Your task to perform on an android device: View the shopping cart on target. Add duracell triple a to the cart on target, then select checkout. Image 0: 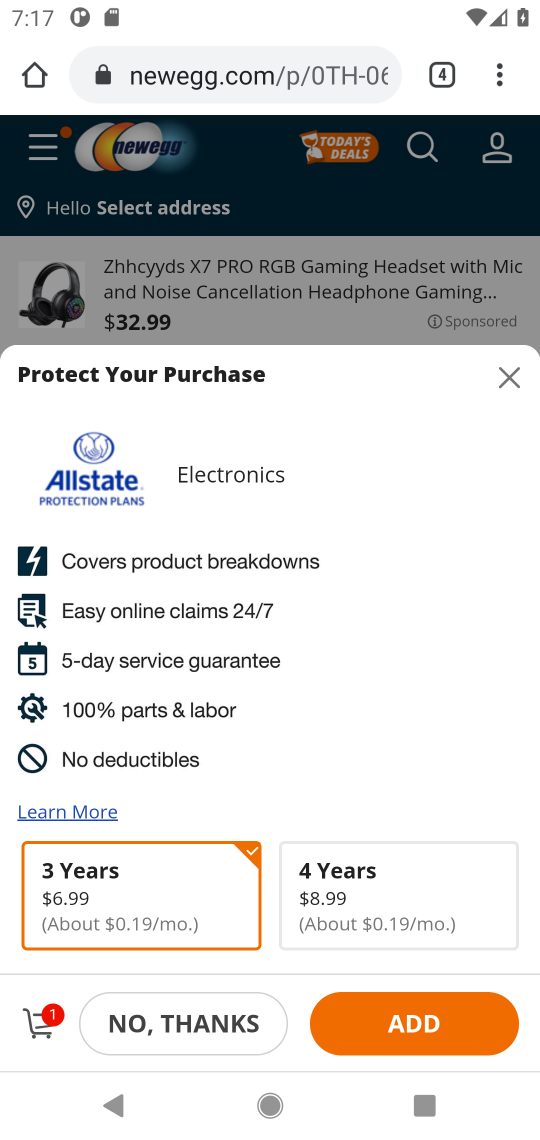
Step 0: drag from (197, 983) to (209, 702)
Your task to perform on an android device: View the shopping cart on target. Add duracell triple a to the cart on target, then select checkout. Image 1: 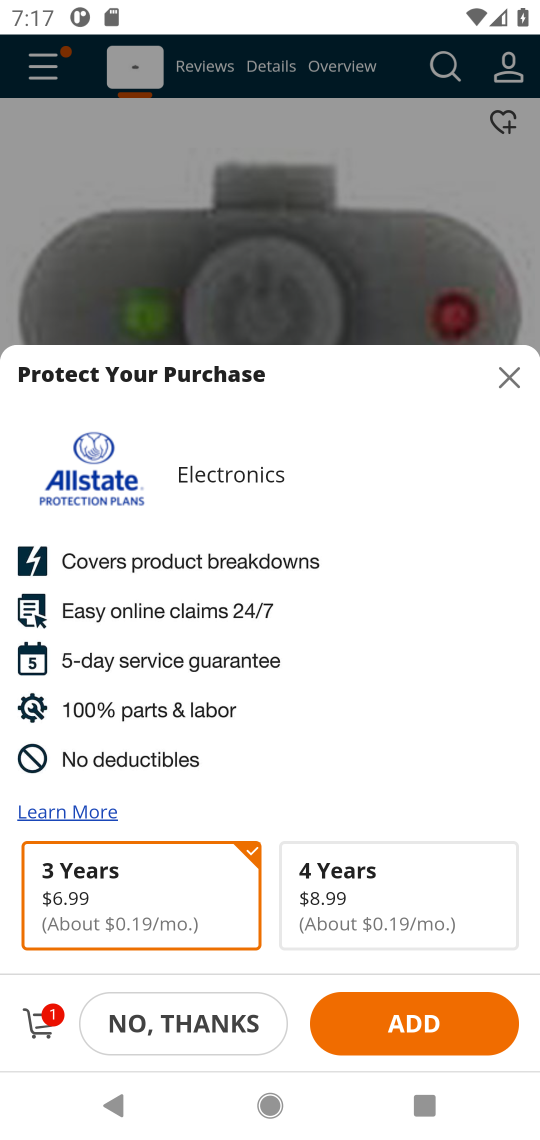
Step 1: click (502, 366)
Your task to perform on an android device: View the shopping cart on target. Add duracell triple a to the cart on target, then select checkout. Image 2: 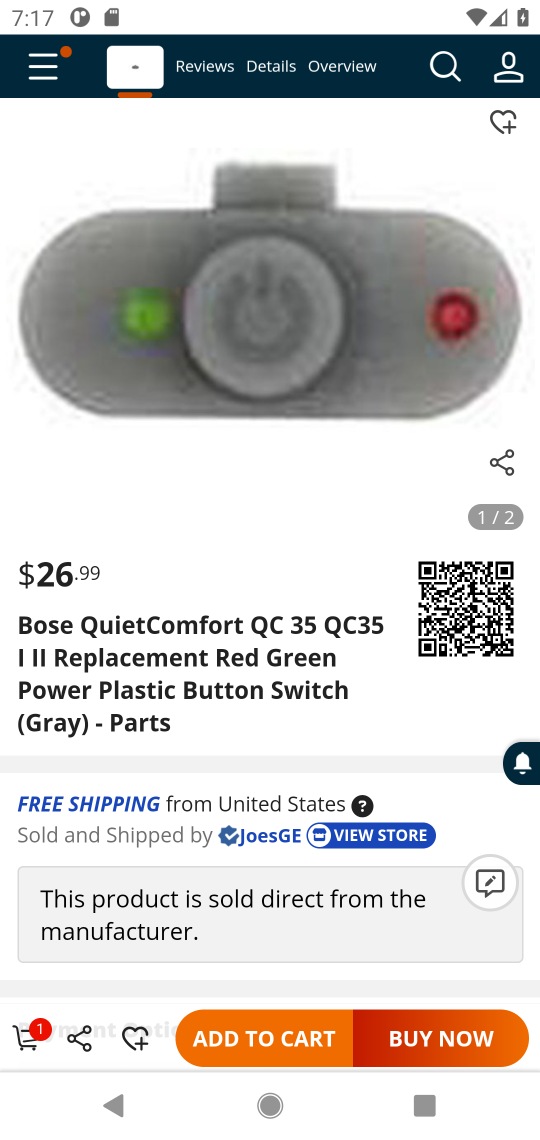
Step 2: press home button
Your task to perform on an android device: View the shopping cart on target. Add duracell triple a to the cart on target, then select checkout. Image 3: 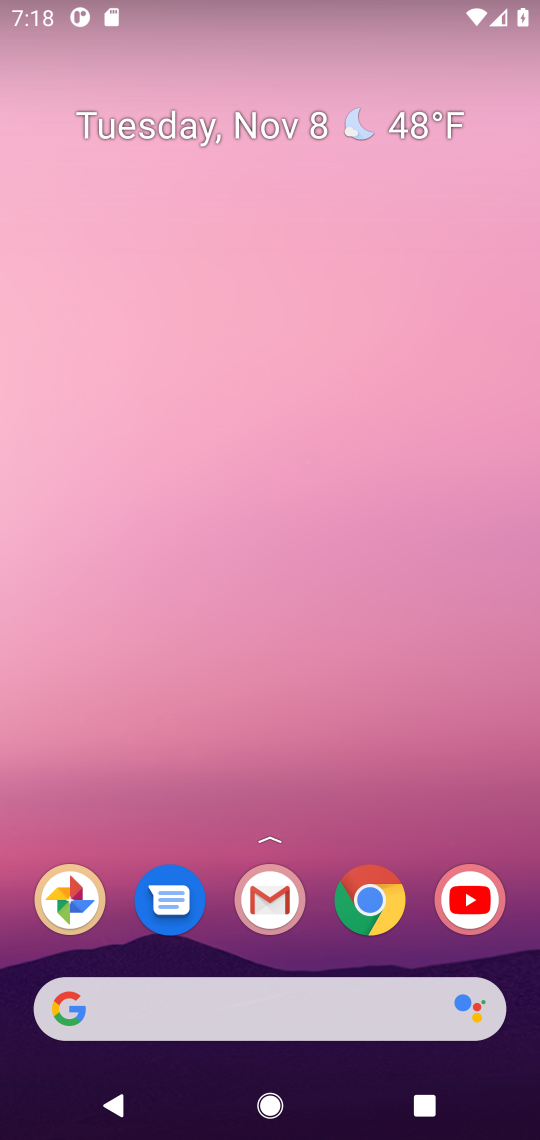
Step 3: drag from (277, 620) to (348, 117)
Your task to perform on an android device: View the shopping cart on target. Add duracell triple a to the cart on target, then select checkout. Image 4: 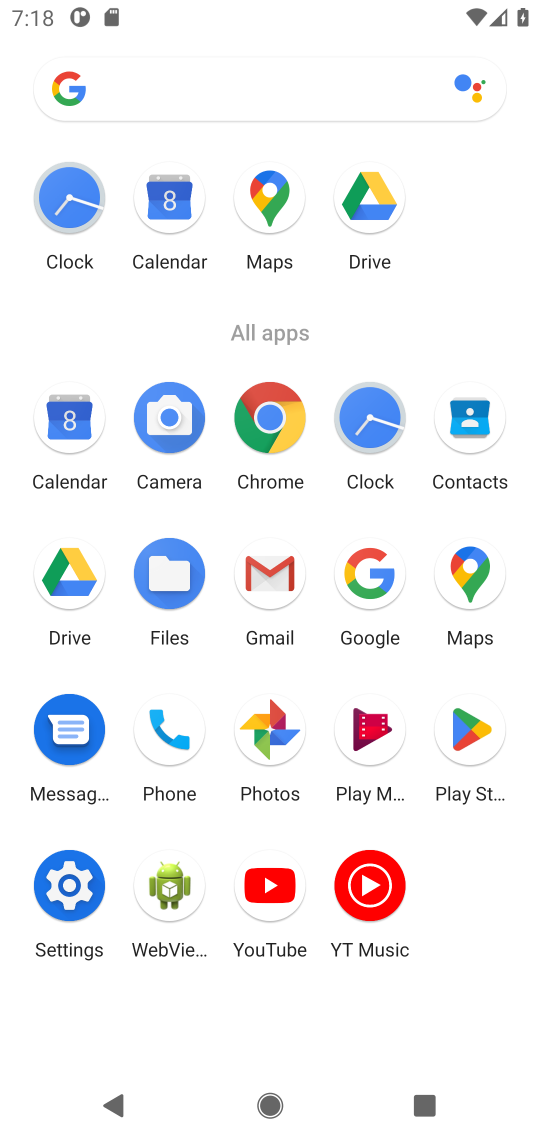
Step 4: click (378, 576)
Your task to perform on an android device: View the shopping cart on target. Add duracell triple a to the cart on target, then select checkout. Image 5: 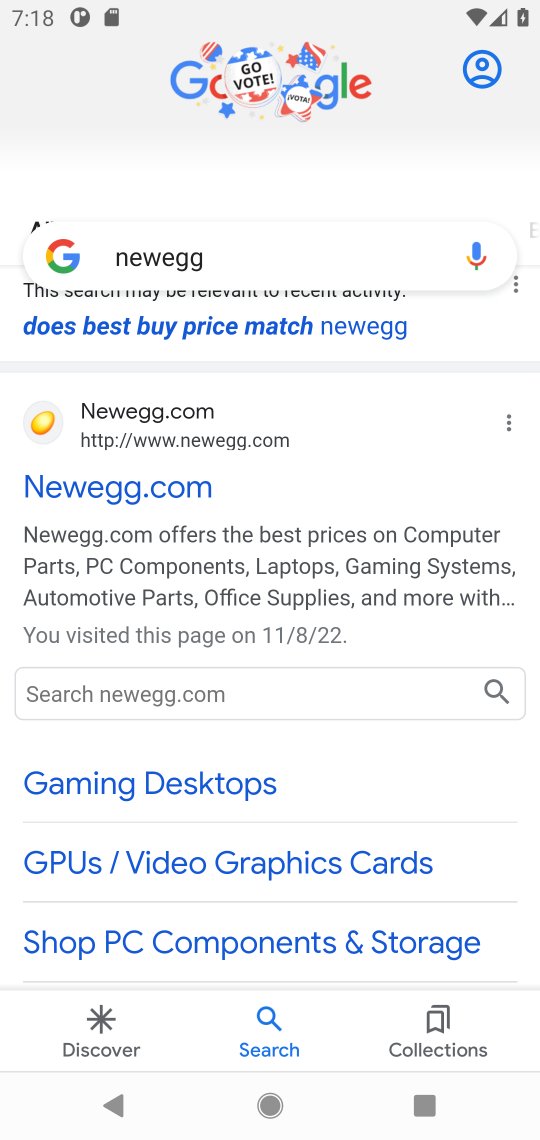
Step 5: click (236, 248)
Your task to perform on an android device: View the shopping cart on target. Add duracell triple a to the cart on target, then select checkout. Image 6: 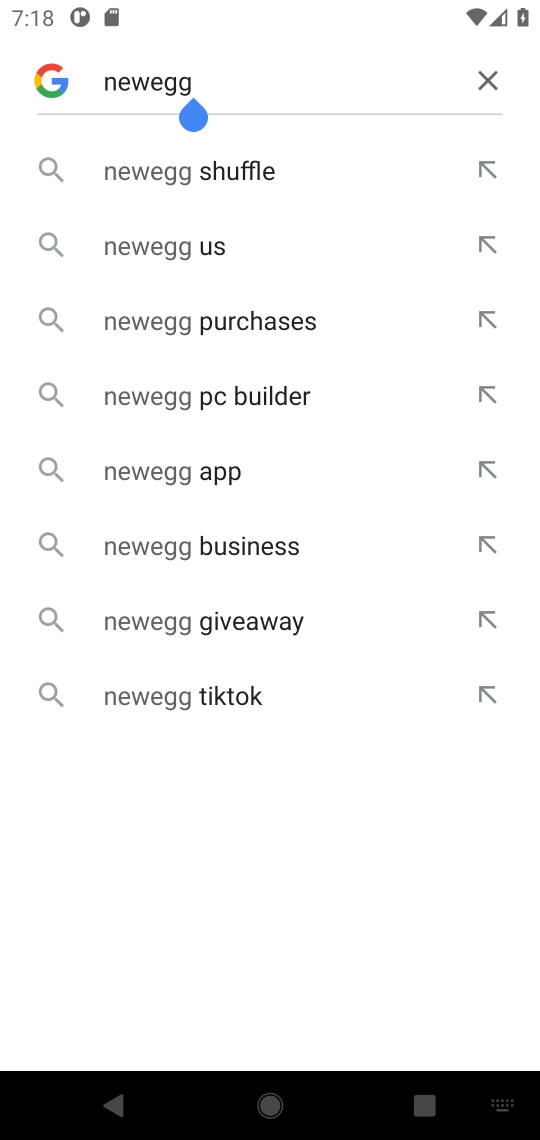
Step 6: click (494, 87)
Your task to perform on an android device: View the shopping cart on target. Add duracell triple a to the cart on target, then select checkout. Image 7: 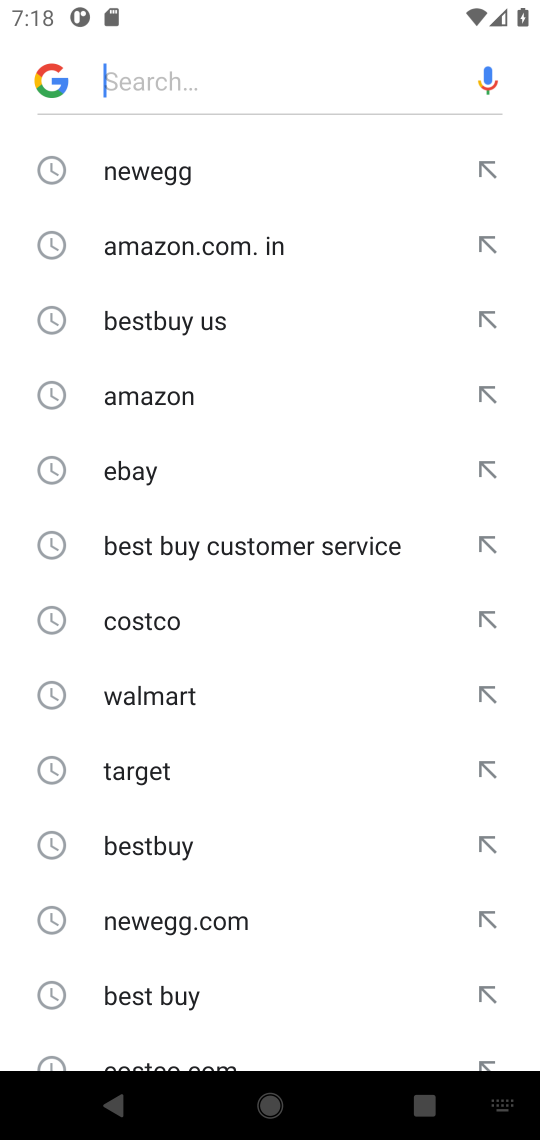
Step 7: click (215, 66)
Your task to perform on an android device: View the shopping cart on target. Add duracell triple a to the cart on target, then select checkout. Image 8: 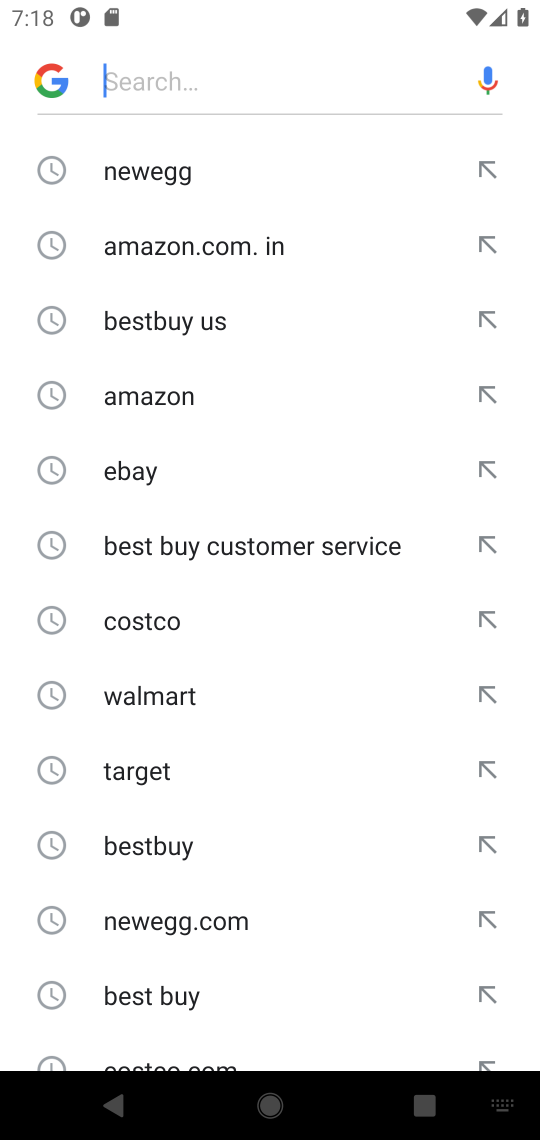
Step 8: type "target "
Your task to perform on an android device: View the shopping cart on target. Add duracell triple a to the cart on target, then select checkout. Image 9: 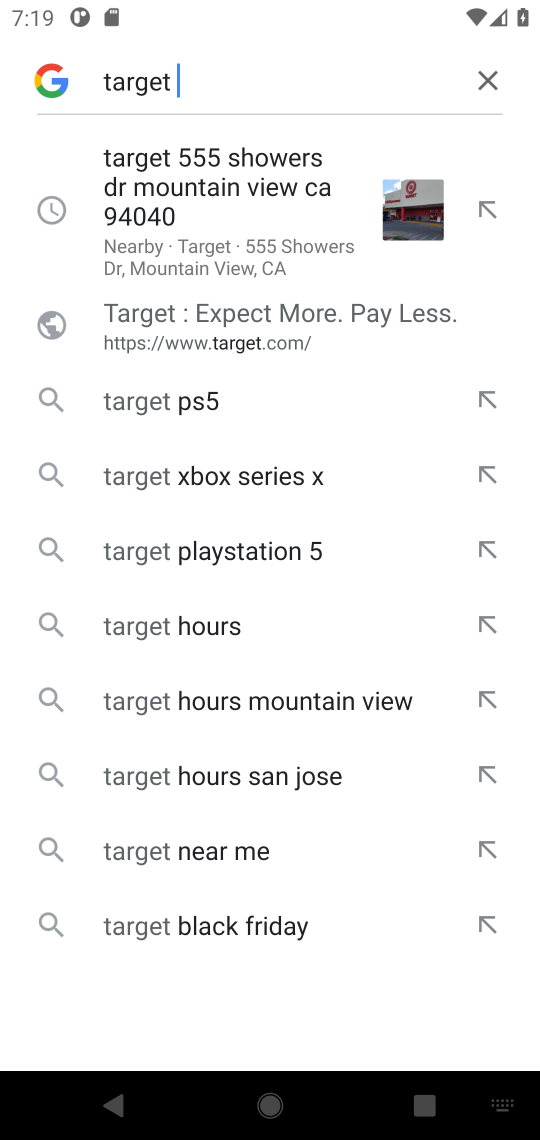
Step 9: click (310, 311)
Your task to perform on an android device: View the shopping cart on target. Add duracell triple a to the cart on target, then select checkout. Image 10: 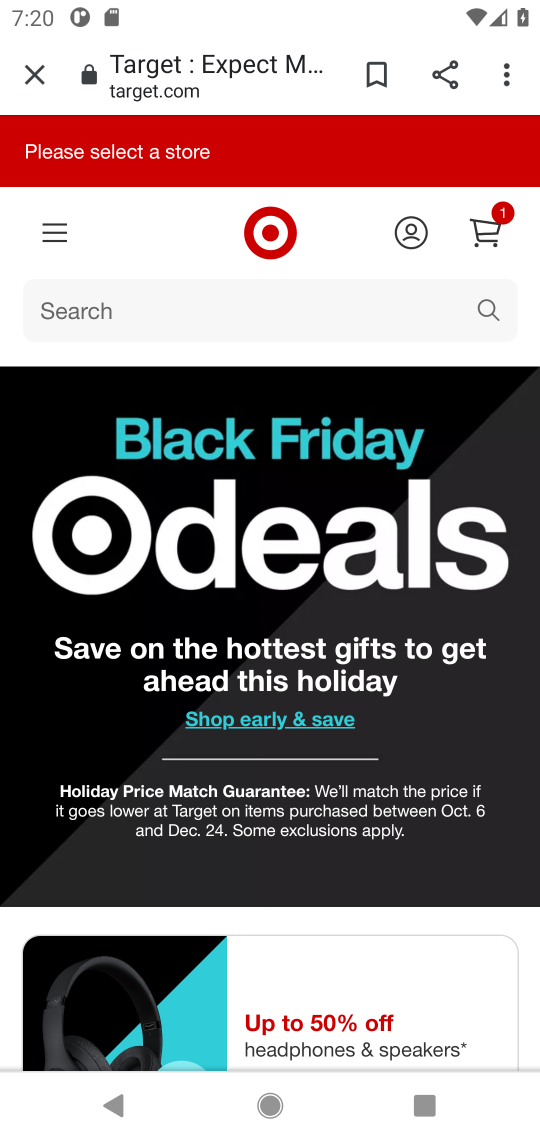
Step 10: click (248, 288)
Your task to perform on an android device: View the shopping cart on target. Add duracell triple a to the cart on target, then select checkout. Image 11: 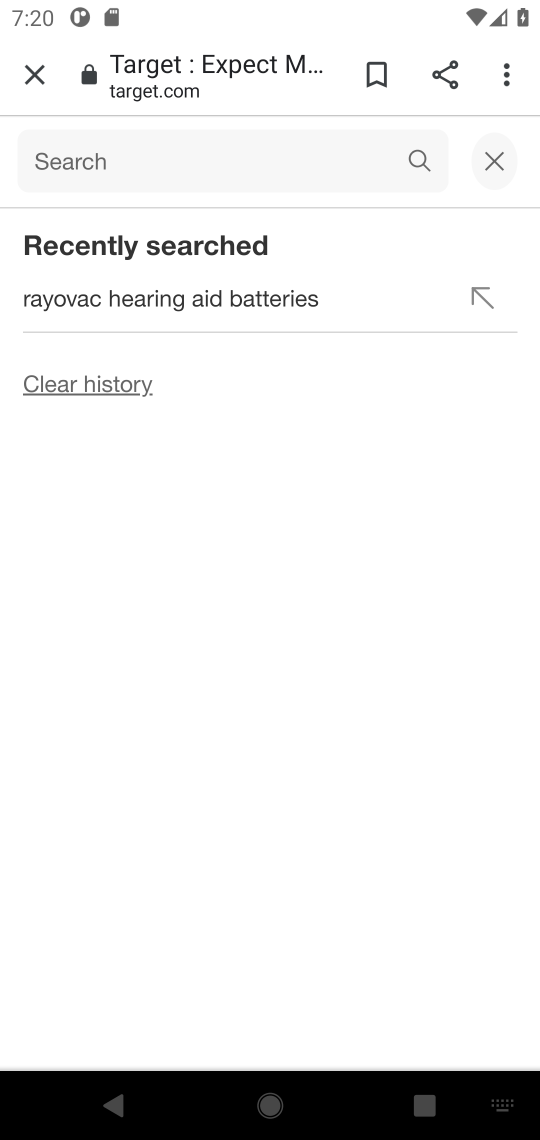
Step 11: type "duracell "
Your task to perform on an android device: View the shopping cart on target. Add duracell triple a to the cart on target, then select checkout. Image 12: 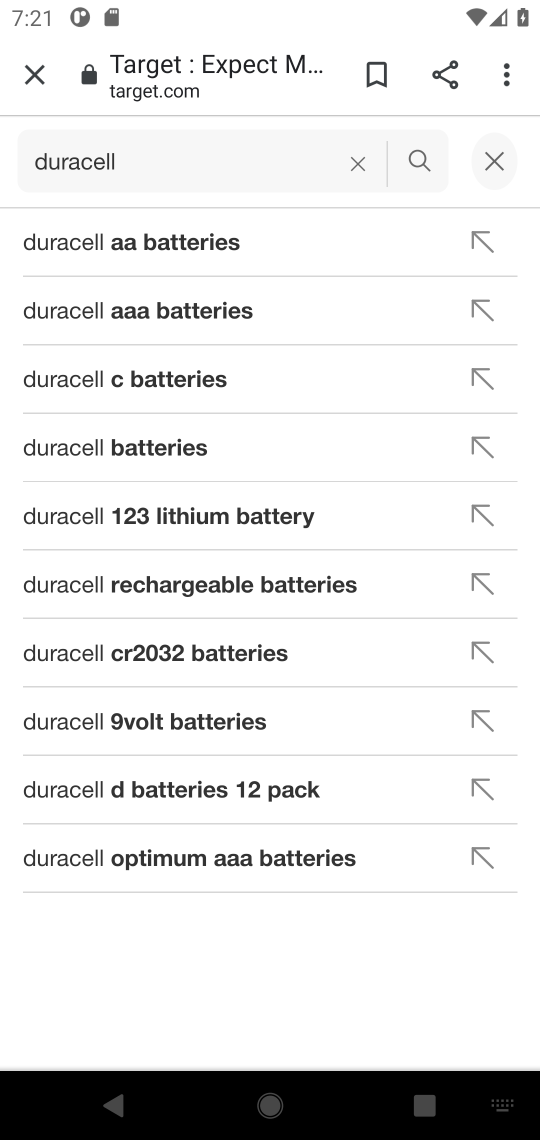
Step 12: click (235, 253)
Your task to perform on an android device: View the shopping cart on target. Add duracell triple a to the cart on target, then select checkout. Image 13: 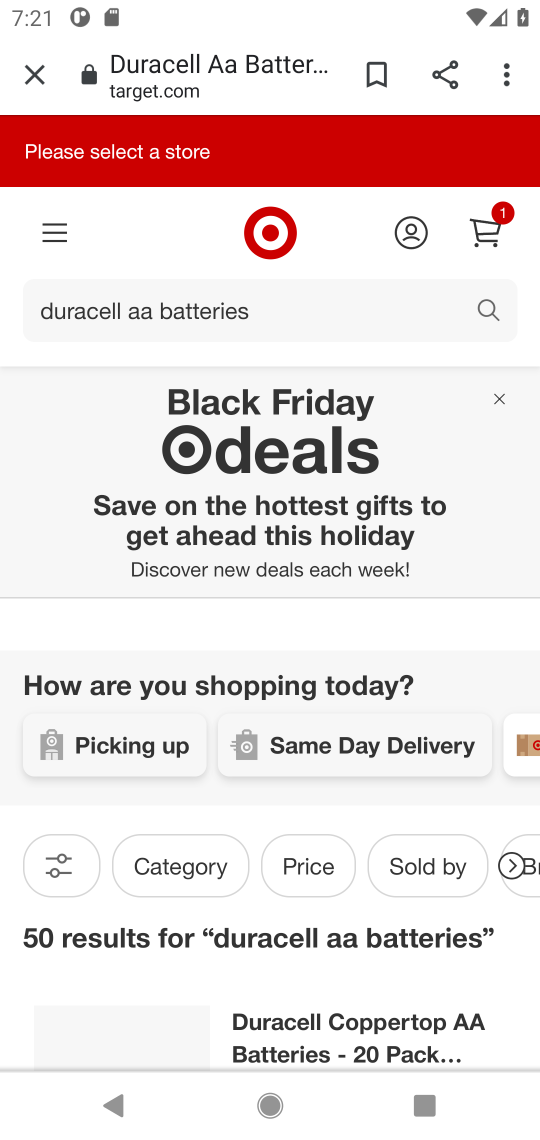
Step 13: drag from (351, 923) to (363, 358)
Your task to perform on an android device: View the shopping cart on target. Add duracell triple a to the cart on target, then select checkout. Image 14: 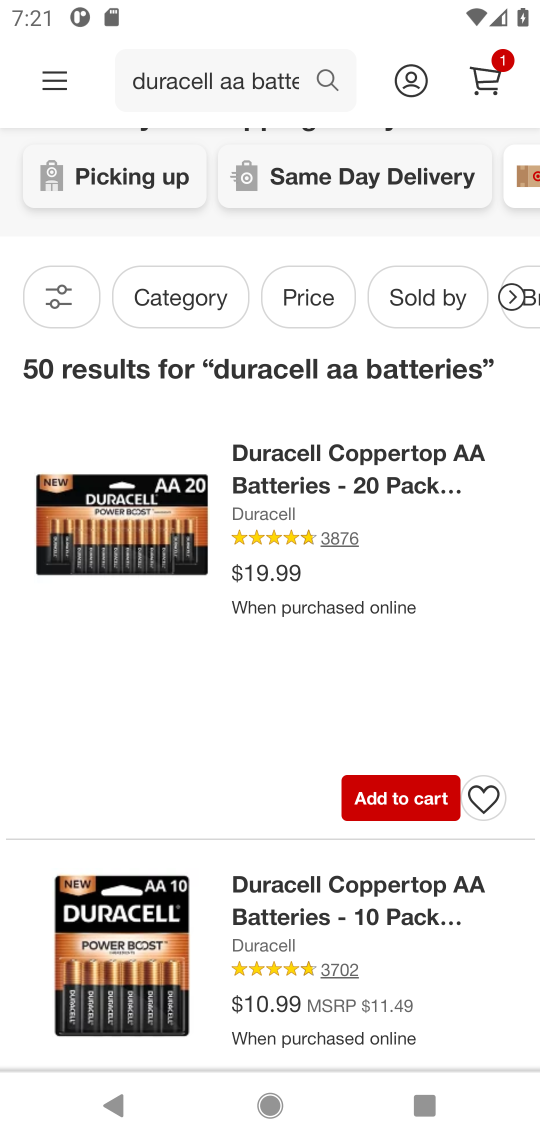
Step 14: click (376, 795)
Your task to perform on an android device: View the shopping cart on target. Add duracell triple a to the cart on target, then select checkout. Image 15: 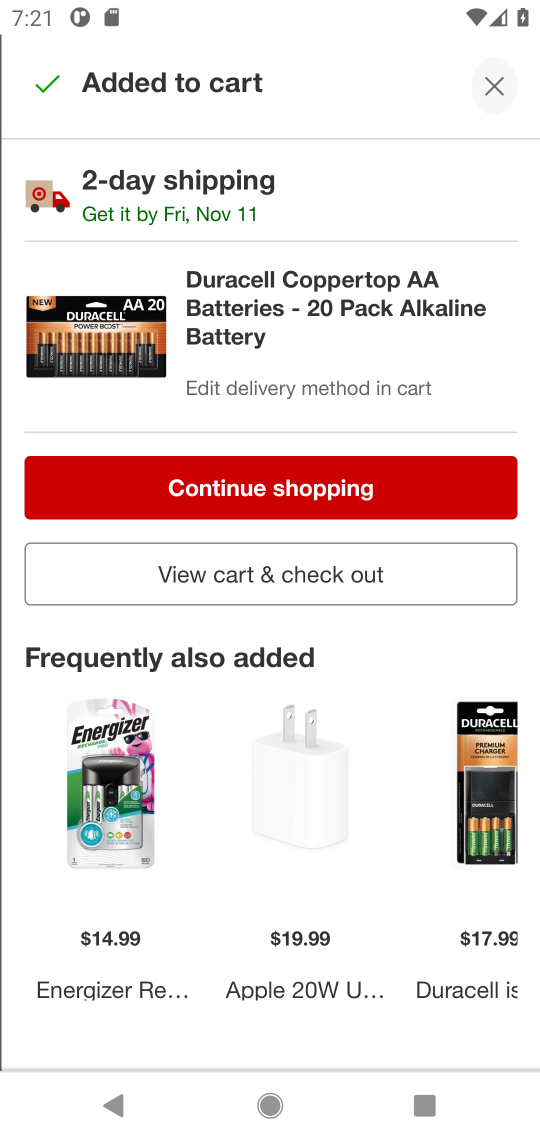
Step 15: task complete